Your task to perform on an android device: toggle notification dots Image 0: 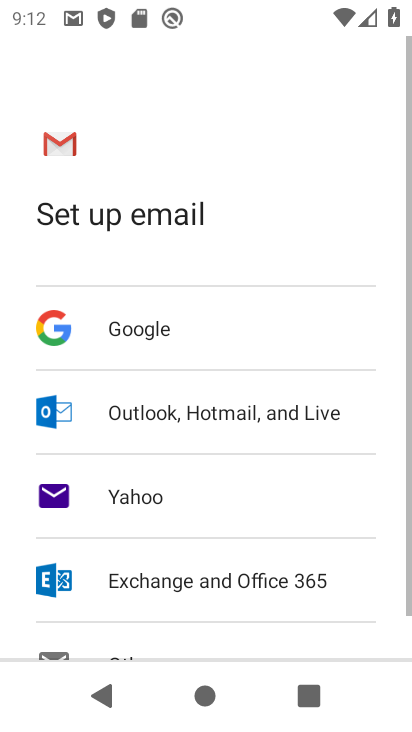
Step 0: press home button
Your task to perform on an android device: toggle notification dots Image 1: 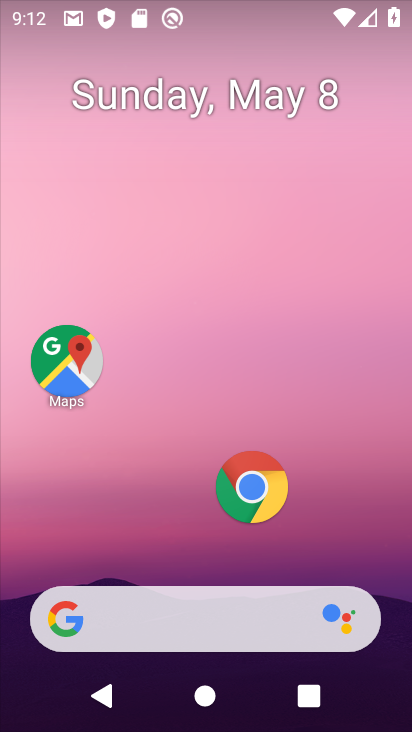
Step 1: drag from (108, 551) to (175, 63)
Your task to perform on an android device: toggle notification dots Image 2: 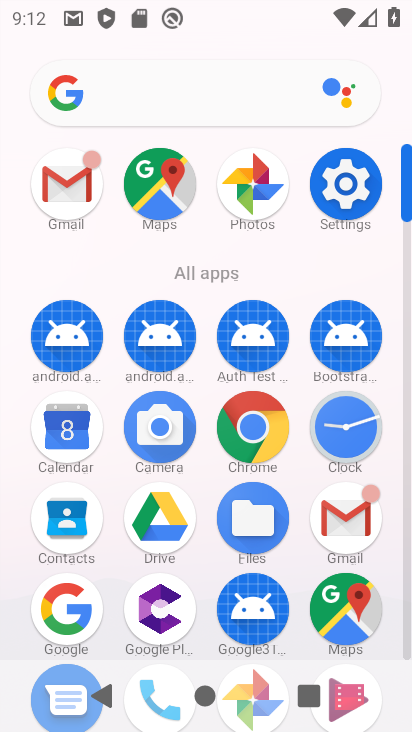
Step 2: click (334, 171)
Your task to perform on an android device: toggle notification dots Image 3: 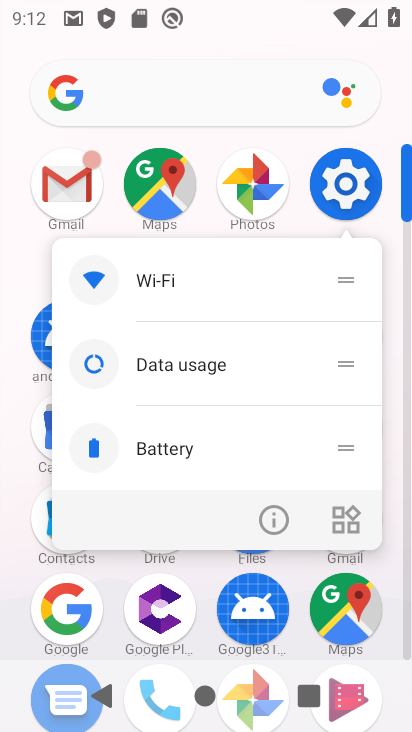
Step 3: click (336, 174)
Your task to perform on an android device: toggle notification dots Image 4: 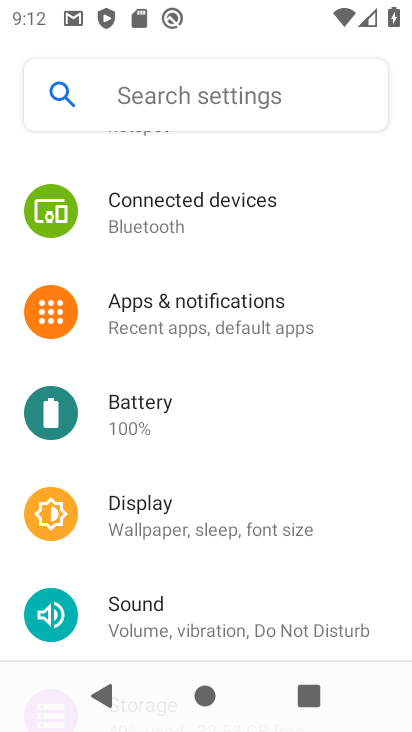
Step 4: click (256, 309)
Your task to perform on an android device: toggle notification dots Image 5: 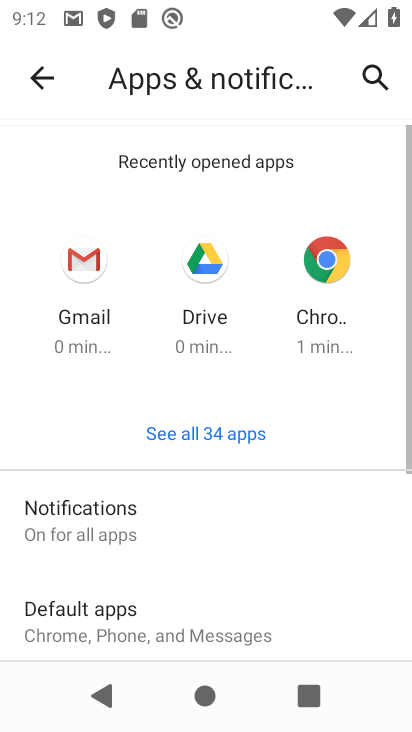
Step 5: click (92, 527)
Your task to perform on an android device: toggle notification dots Image 6: 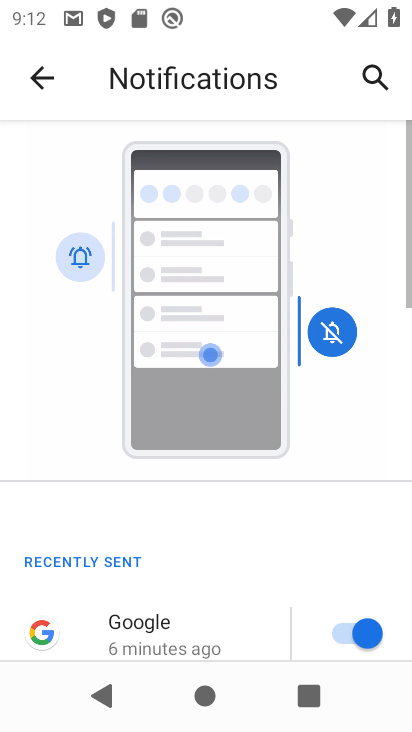
Step 6: drag from (252, 552) to (258, 146)
Your task to perform on an android device: toggle notification dots Image 7: 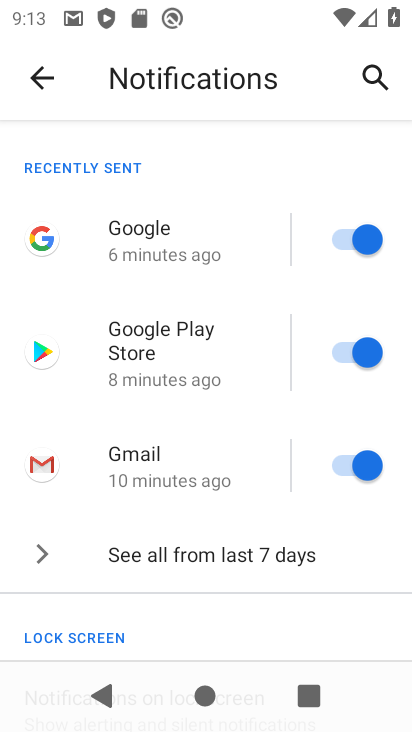
Step 7: drag from (162, 636) to (203, 138)
Your task to perform on an android device: toggle notification dots Image 8: 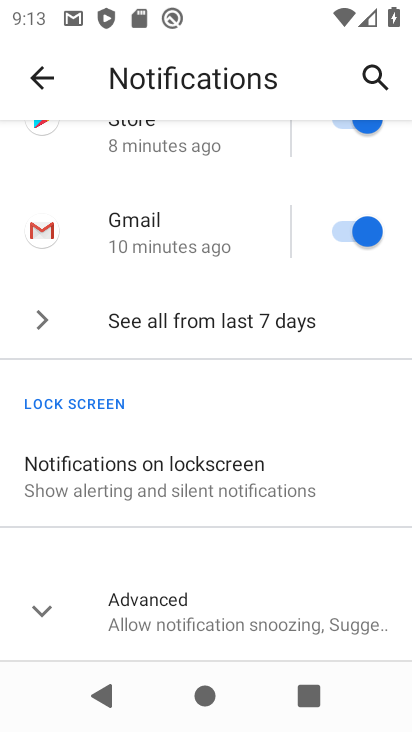
Step 8: click (35, 606)
Your task to perform on an android device: toggle notification dots Image 9: 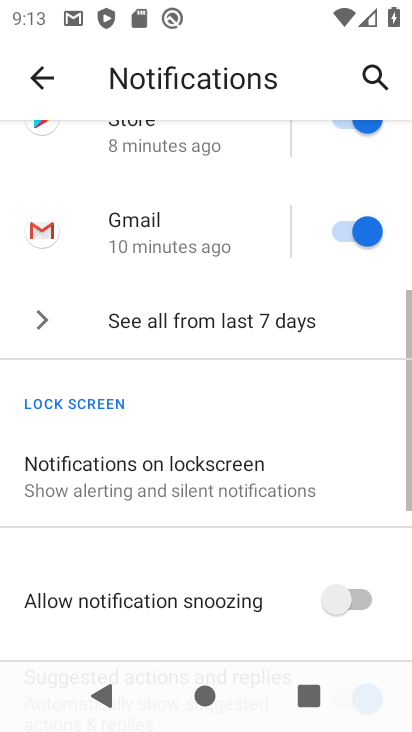
Step 9: drag from (242, 513) to (268, 174)
Your task to perform on an android device: toggle notification dots Image 10: 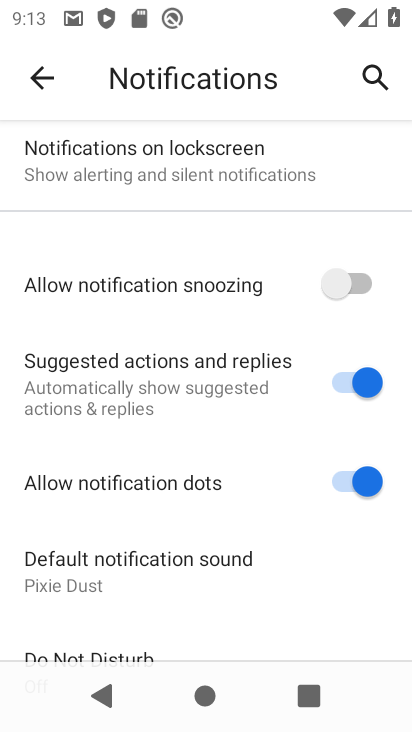
Step 10: click (356, 478)
Your task to perform on an android device: toggle notification dots Image 11: 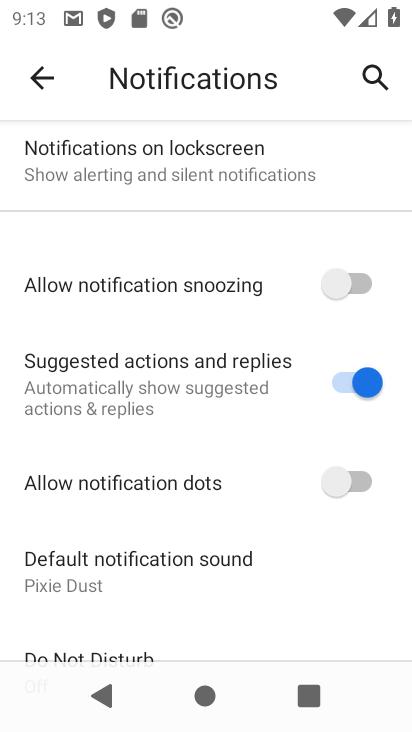
Step 11: task complete